Your task to perform on an android device: open app "Clock" Image 0: 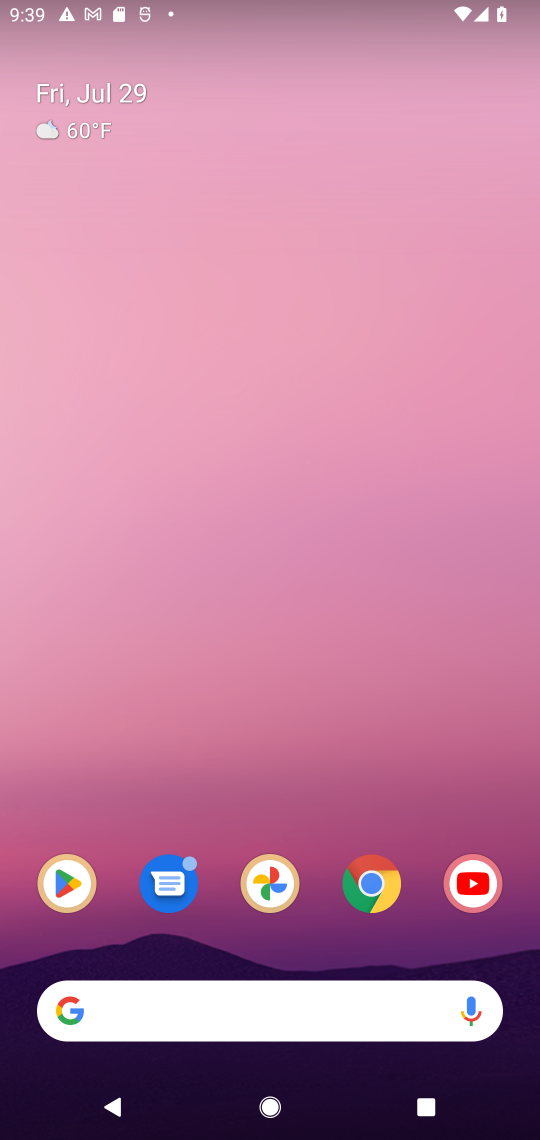
Step 0: drag from (236, 952) to (442, 12)
Your task to perform on an android device: open app "Clock" Image 1: 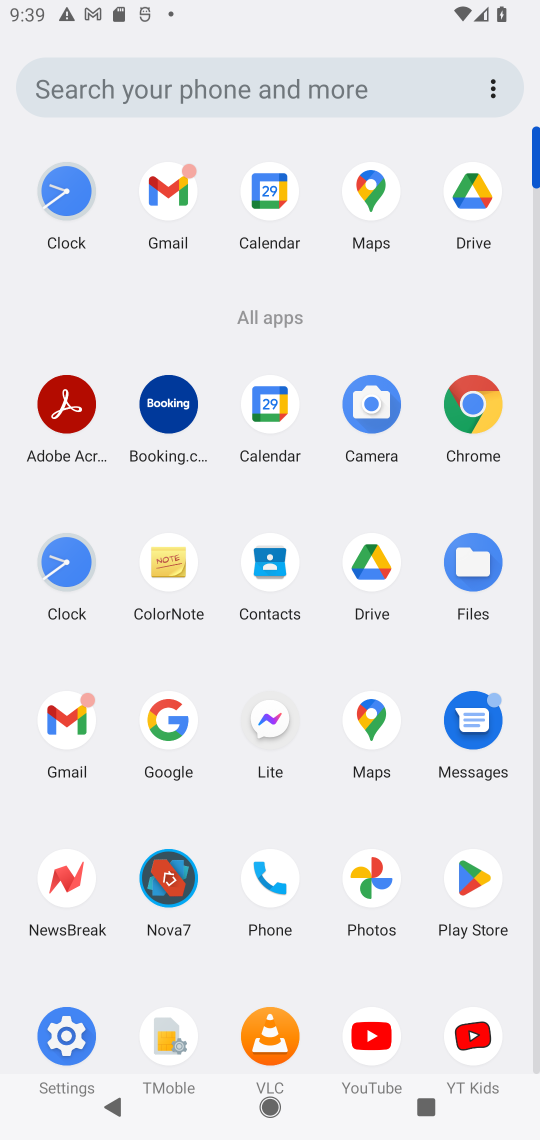
Step 1: click (65, 574)
Your task to perform on an android device: open app "Clock" Image 2: 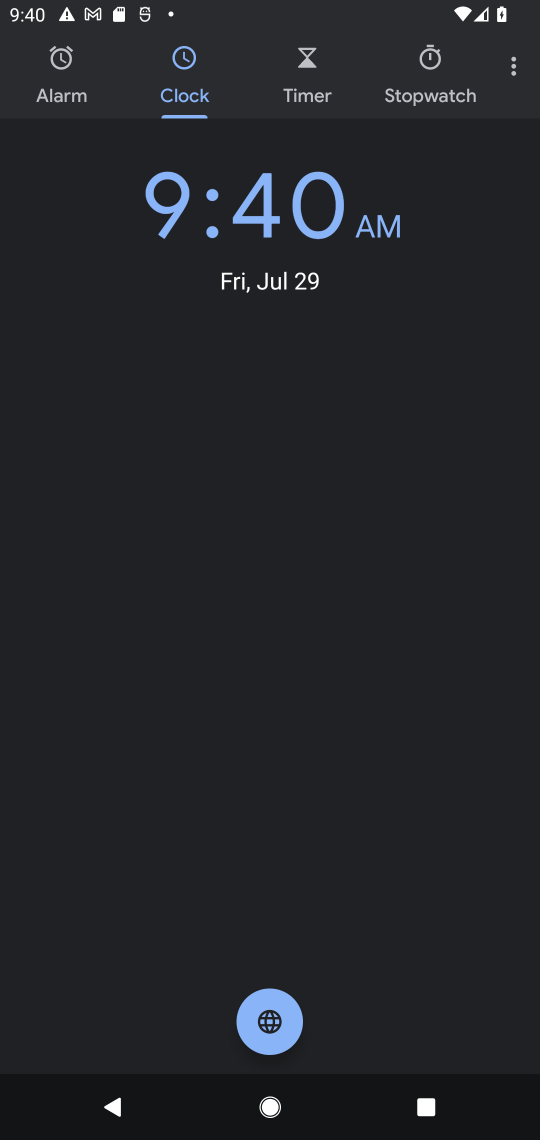
Step 2: task complete